Your task to perform on an android device: Open location settings Image 0: 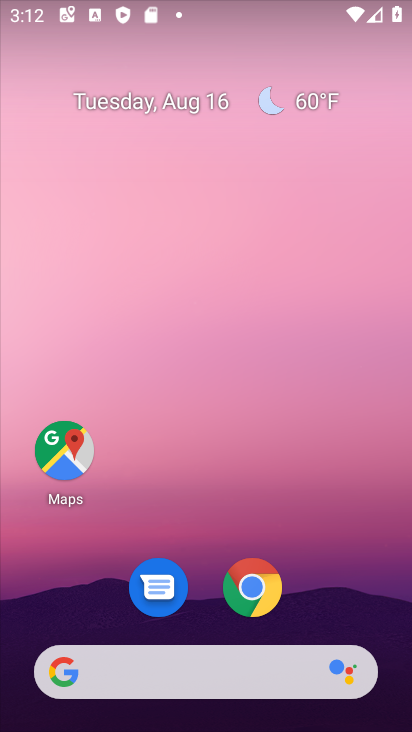
Step 0: drag from (189, 582) to (340, 6)
Your task to perform on an android device: Open location settings Image 1: 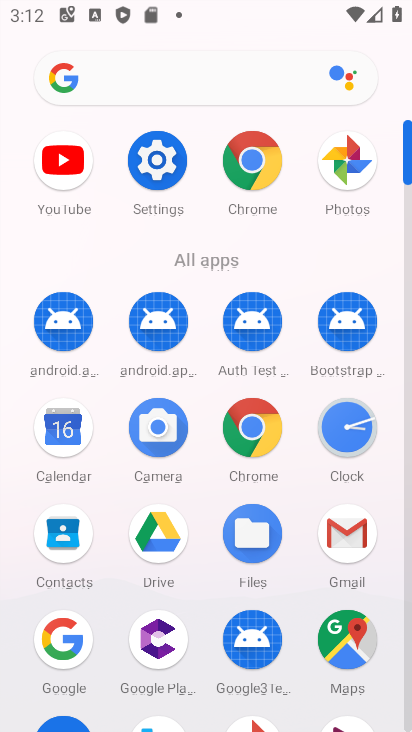
Step 1: click (148, 150)
Your task to perform on an android device: Open location settings Image 2: 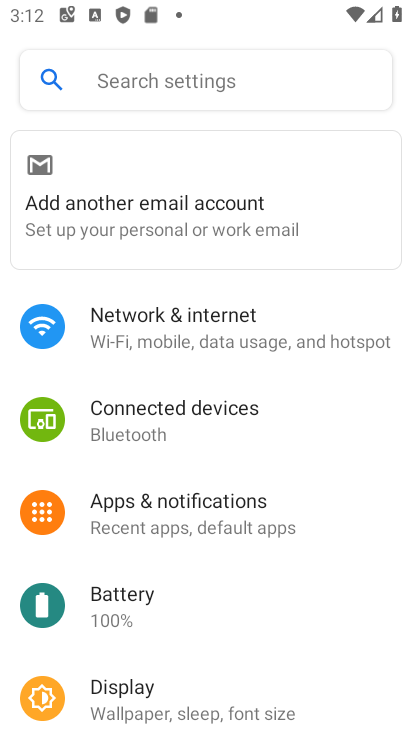
Step 2: drag from (156, 604) to (270, 14)
Your task to perform on an android device: Open location settings Image 3: 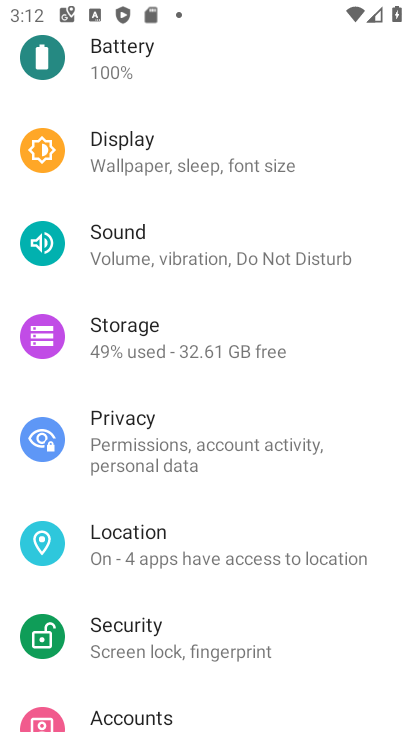
Step 3: click (166, 552)
Your task to perform on an android device: Open location settings Image 4: 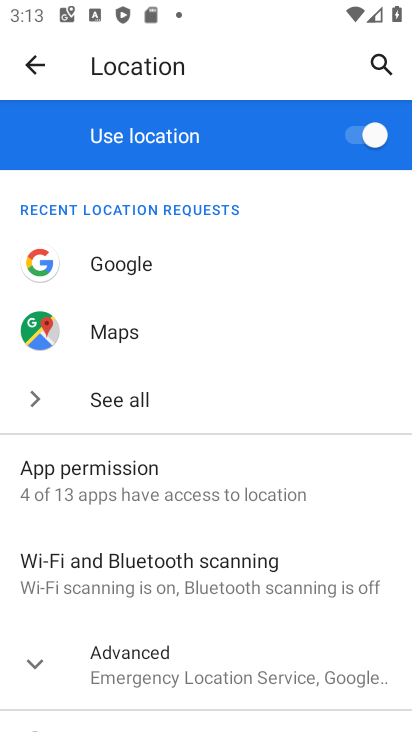
Step 4: task complete